Your task to perform on an android device: turn off data saver in the chrome app Image 0: 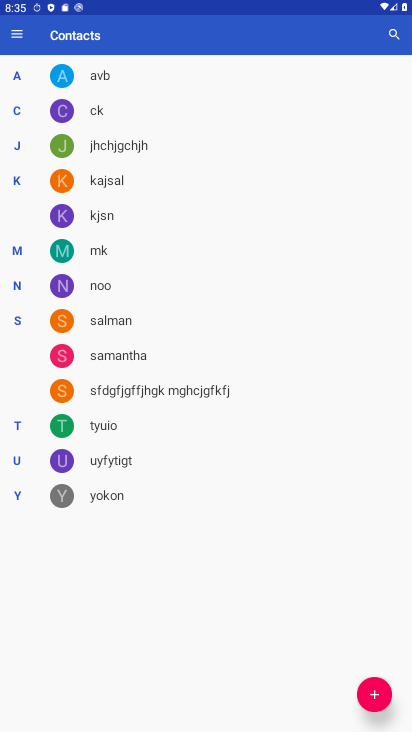
Step 0: press home button
Your task to perform on an android device: turn off data saver in the chrome app Image 1: 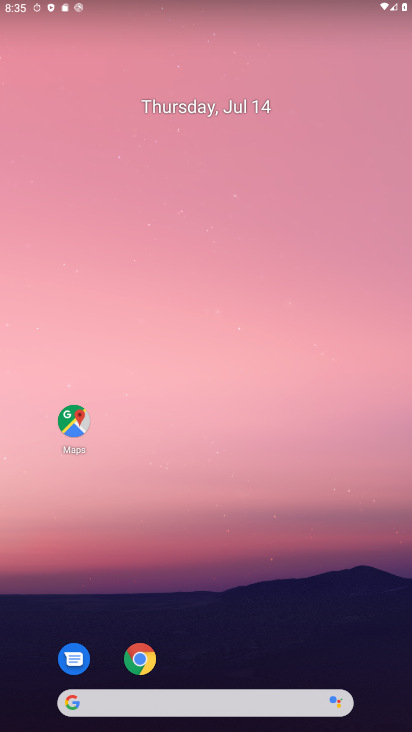
Step 1: click (143, 660)
Your task to perform on an android device: turn off data saver in the chrome app Image 2: 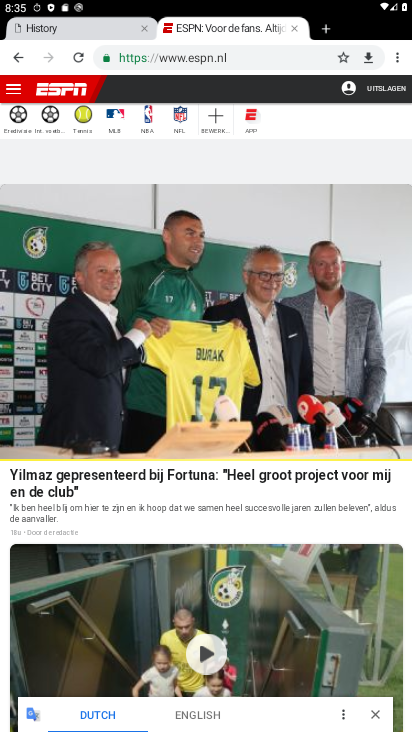
Step 2: click (392, 57)
Your task to perform on an android device: turn off data saver in the chrome app Image 3: 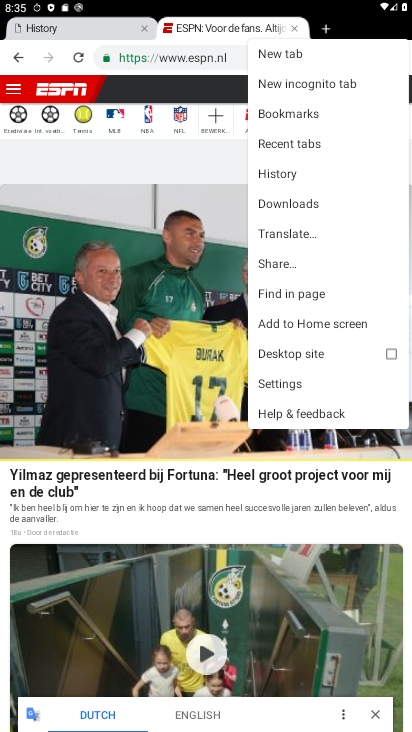
Step 3: click (270, 378)
Your task to perform on an android device: turn off data saver in the chrome app Image 4: 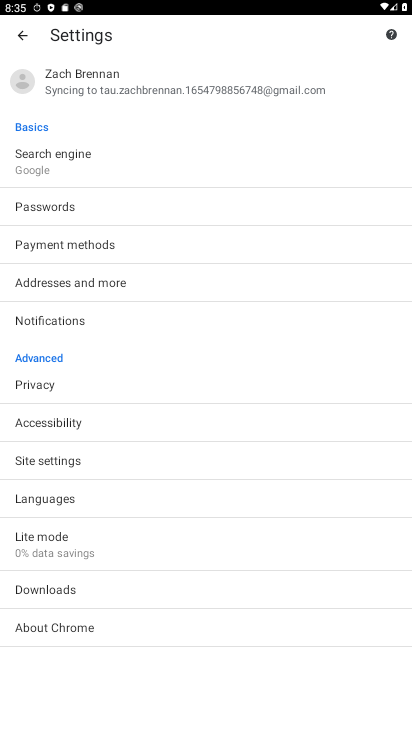
Step 4: click (65, 546)
Your task to perform on an android device: turn off data saver in the chrome app Image 5: 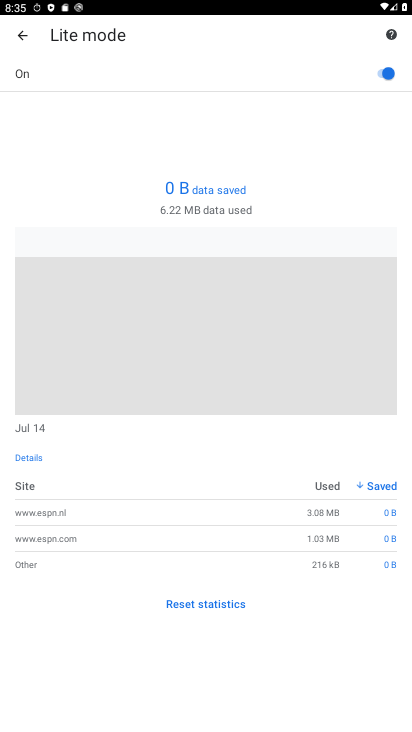
Step 5: click (383, 76)
Your task to perform on an android device: turn off data saver in the chrome app Image 6: 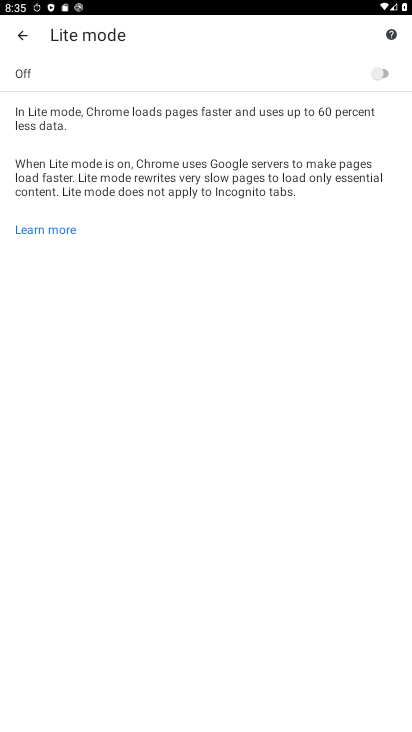
Step 6: task complete